Your task to perform on an android device: Check the weather Image 0: 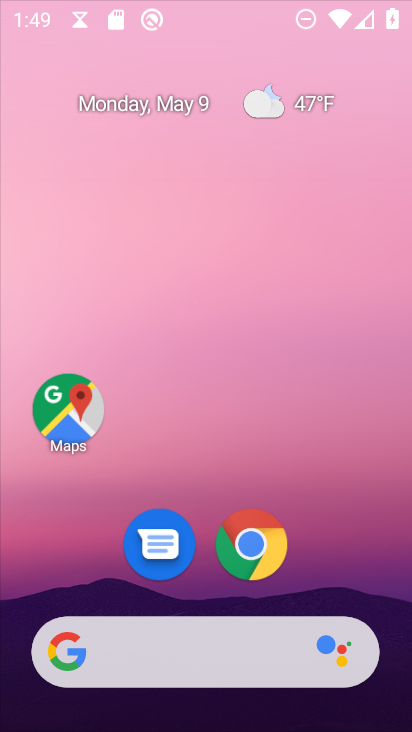
Step 0: click (384, 236)
Your task to perform on an android device: Check the weather Image 1: 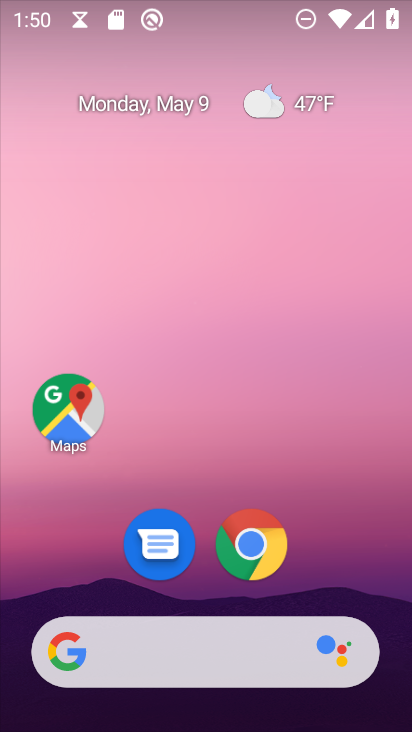
Step 1: drag from (341, 482) to (352, 137)
Your task to perform on an android device: Check the weather Image 2: 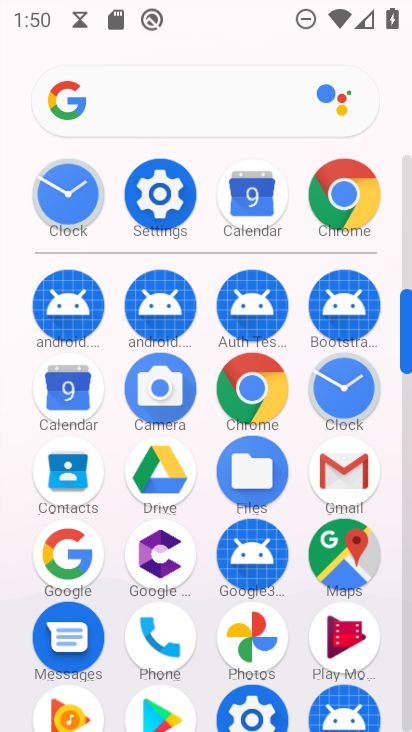
Step 2: press home button
Your task to perform on an android device: Check the weather Image 3: 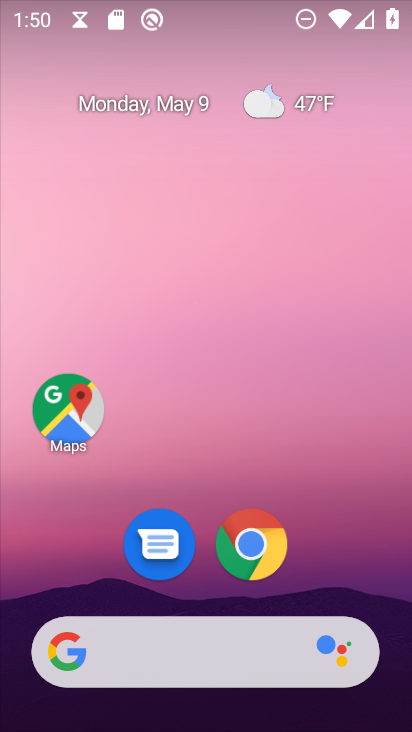
Step 3: click (301, 109)
Your task to perform on an android device: Check the weather Image 4: 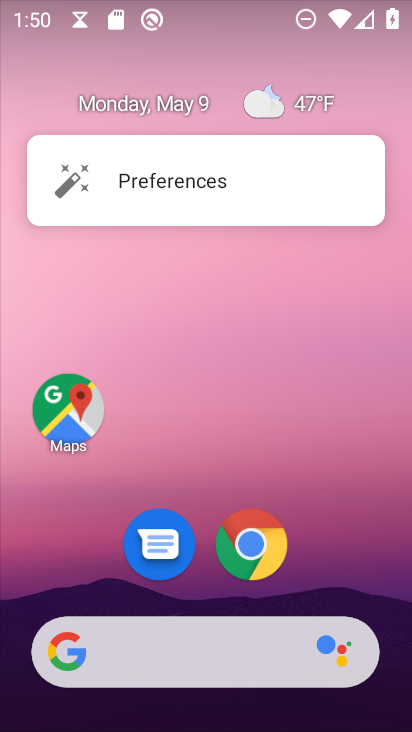
Step 4: click (299, 110)
Your task to perform on an android device: Check the weather Image 5: 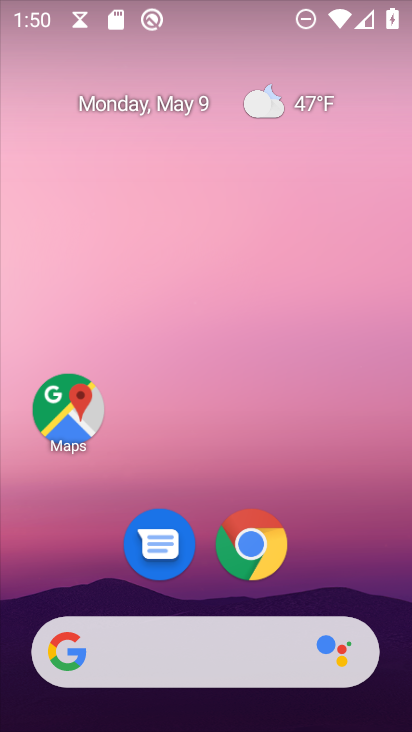
Step 5: click (299, 110)
Your task to perform on an android device: Check the weather Image 6: 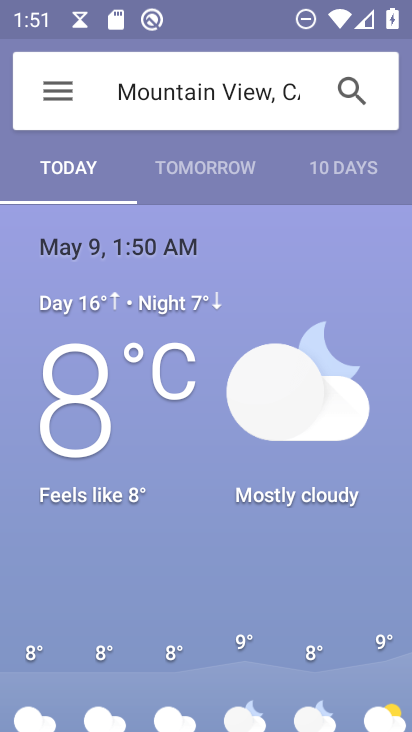
Step 6: task complete